Your task to perform on an android device: How big is a giraffe? Image 0: 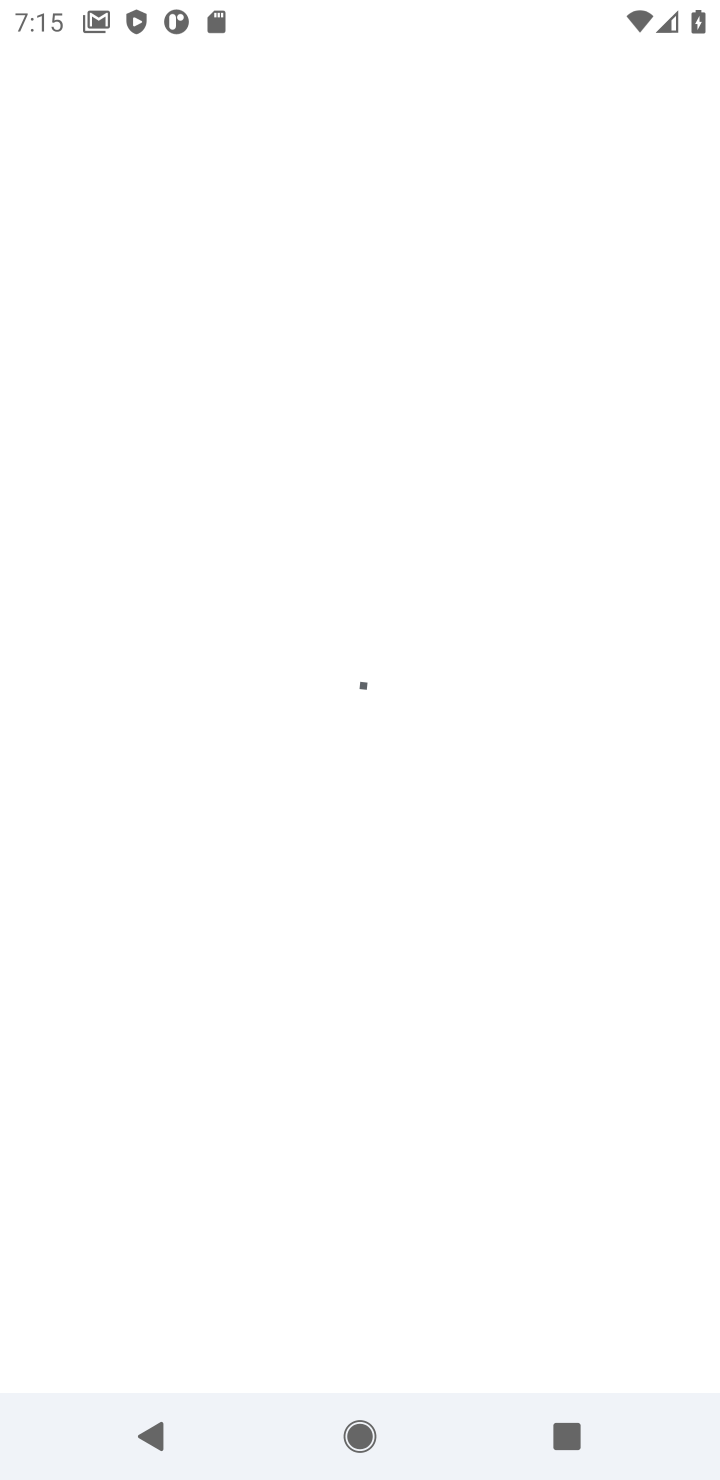
Step 0: press home button
Your task to perform on an android device: How big is a giraffe? Image 1: 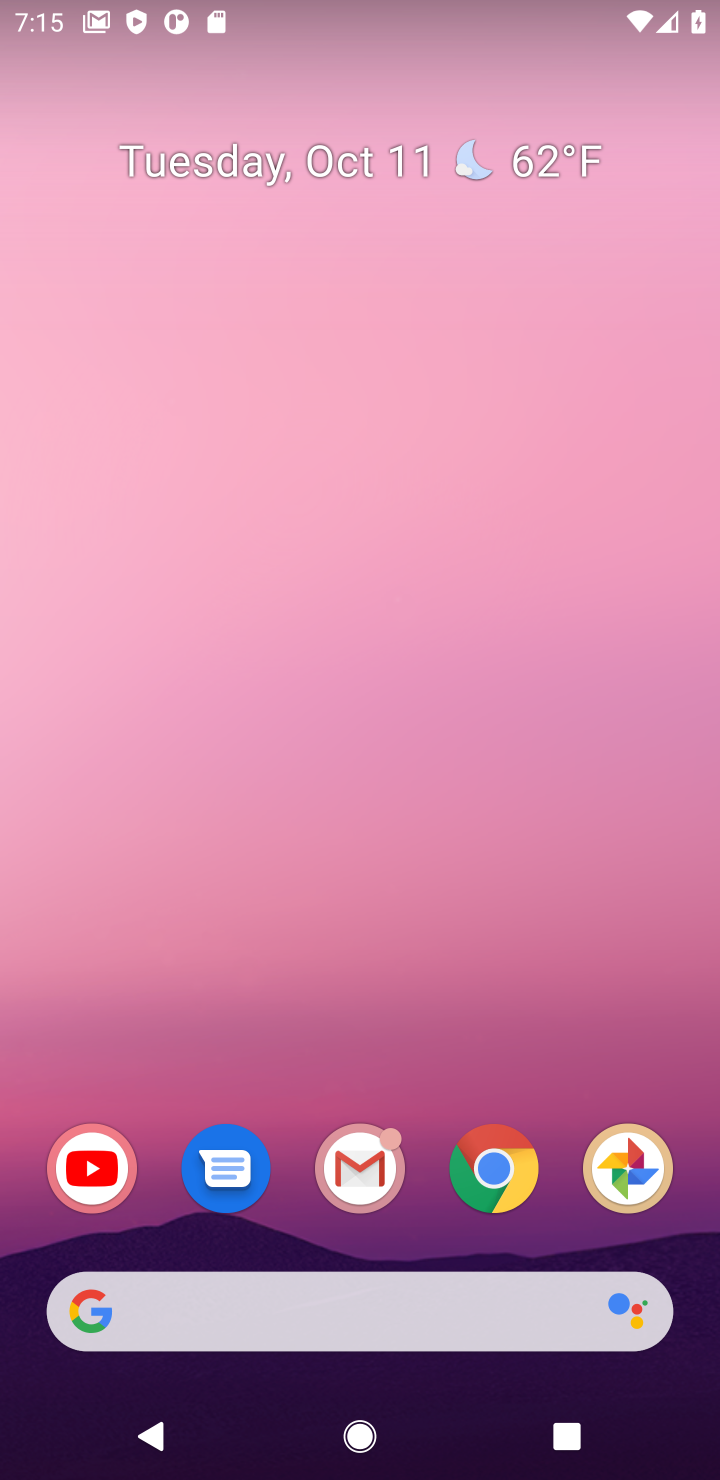
Step 1: click (502, 1178)
Your task to perform on an android device: How big is a giraffe? Image 2: 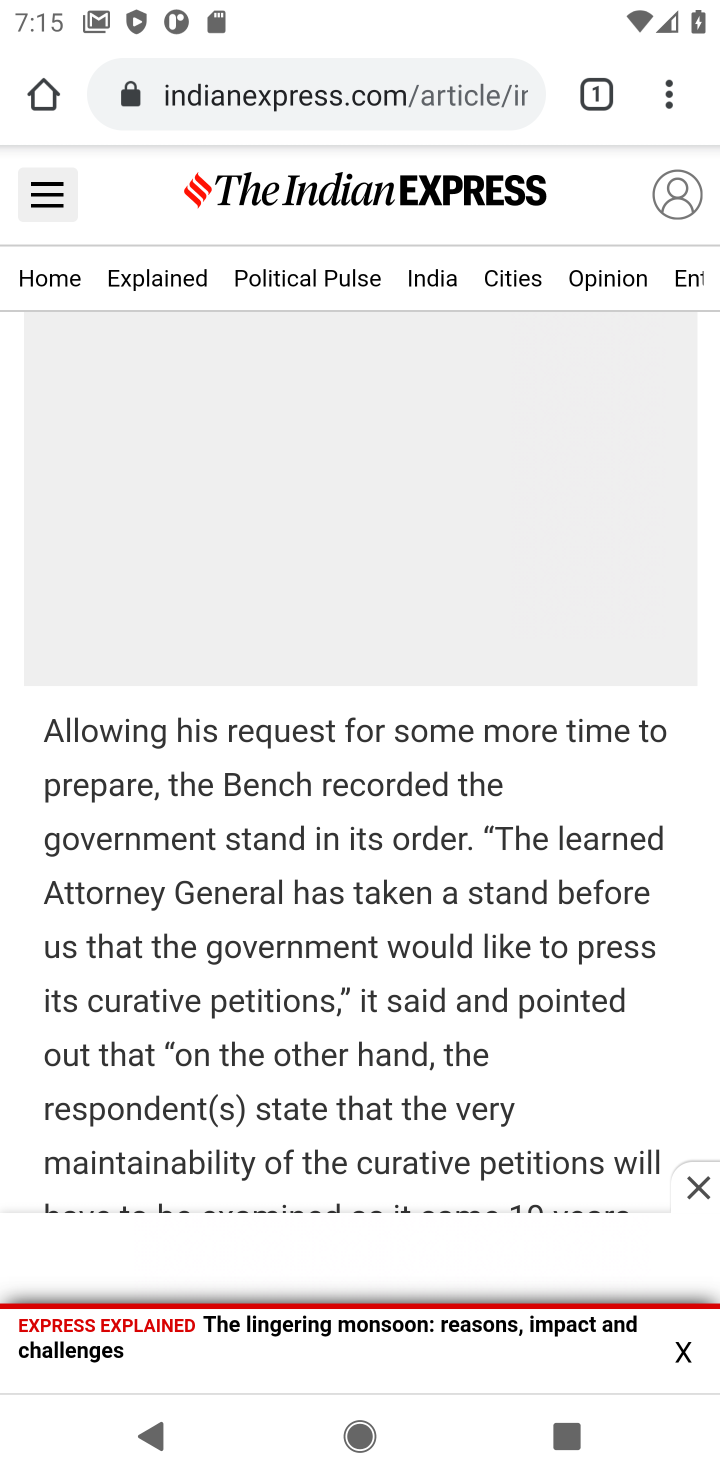
Step 2: click (317, 91)
Your task to perform on an android device: How big is a giraffe? Image 3: 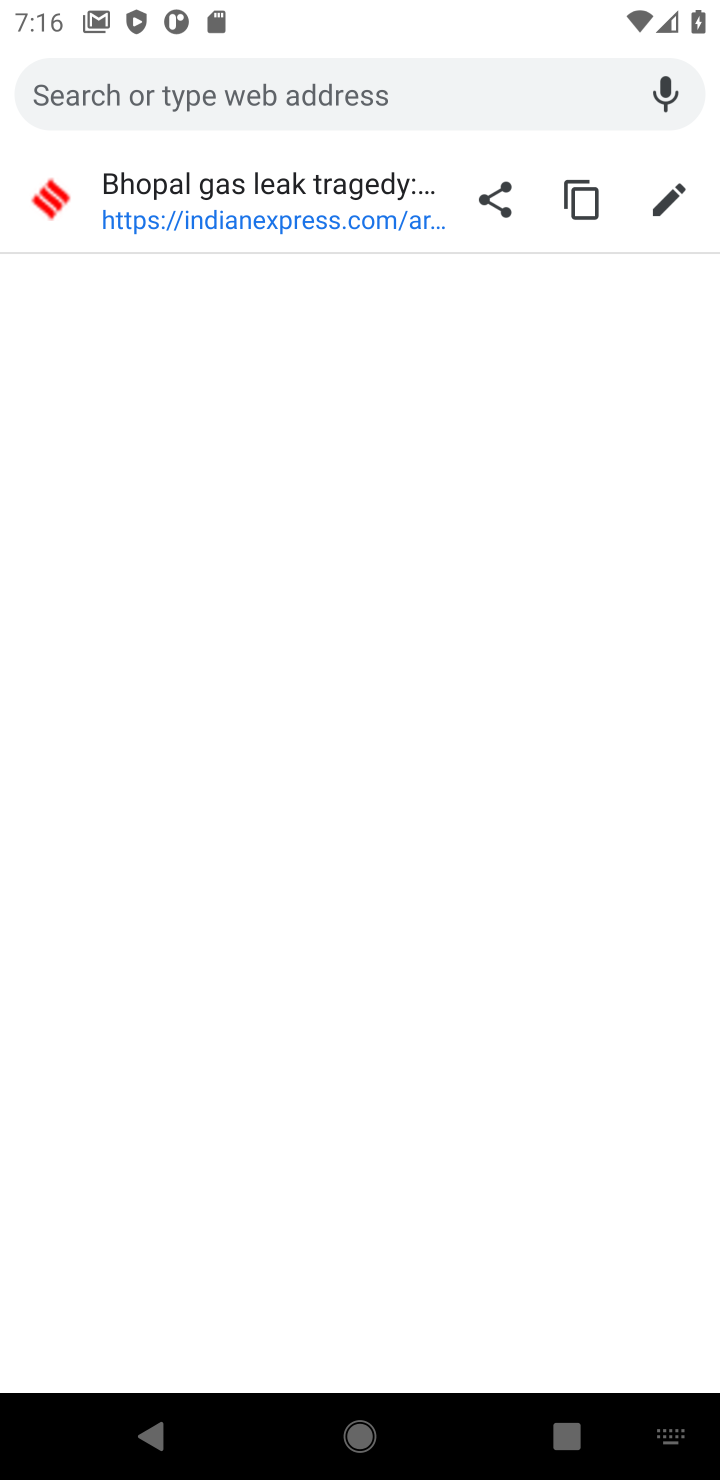
Step 3: type "how big is giraffe"
Your task to perform on an android device: How big is a giraffe? Image 4: 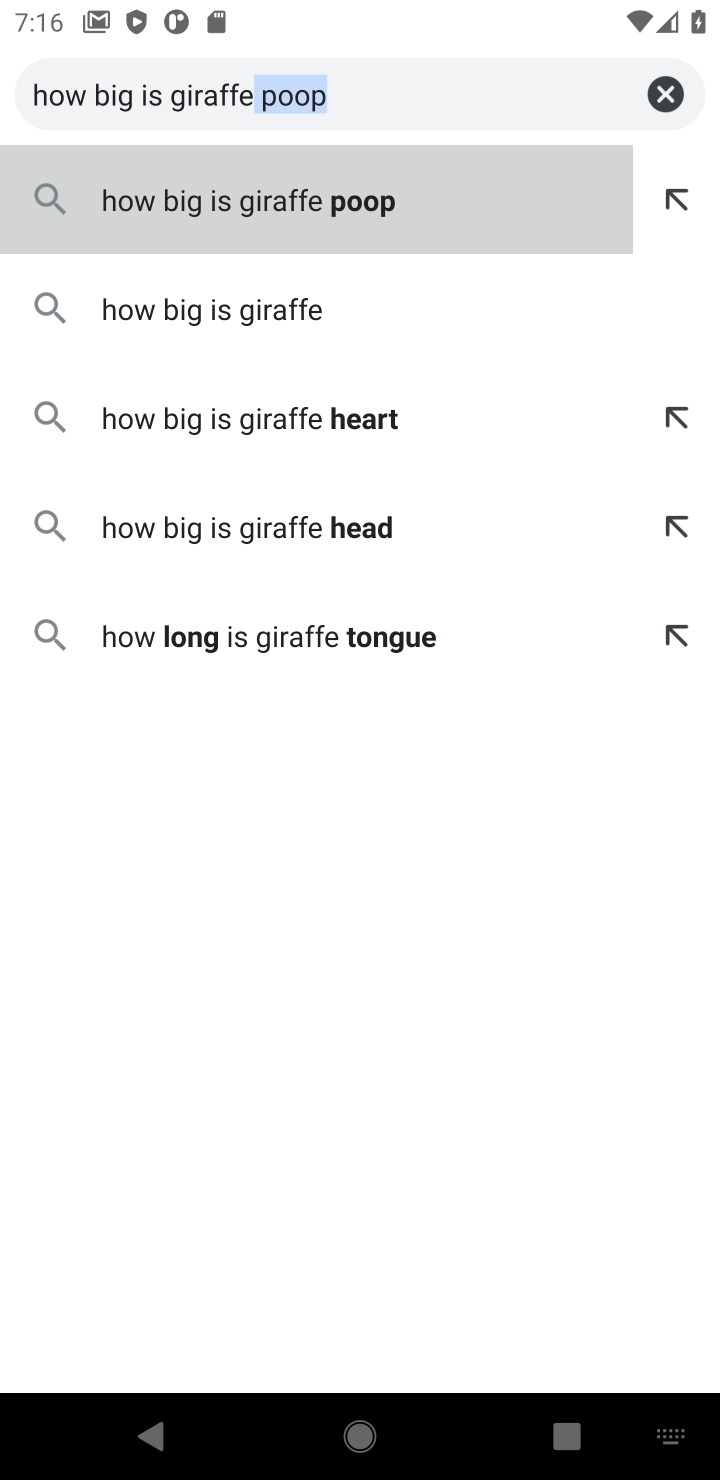
Step 4: type ""
Your task to perform on an android device: How big is a giraffe? Image 5: 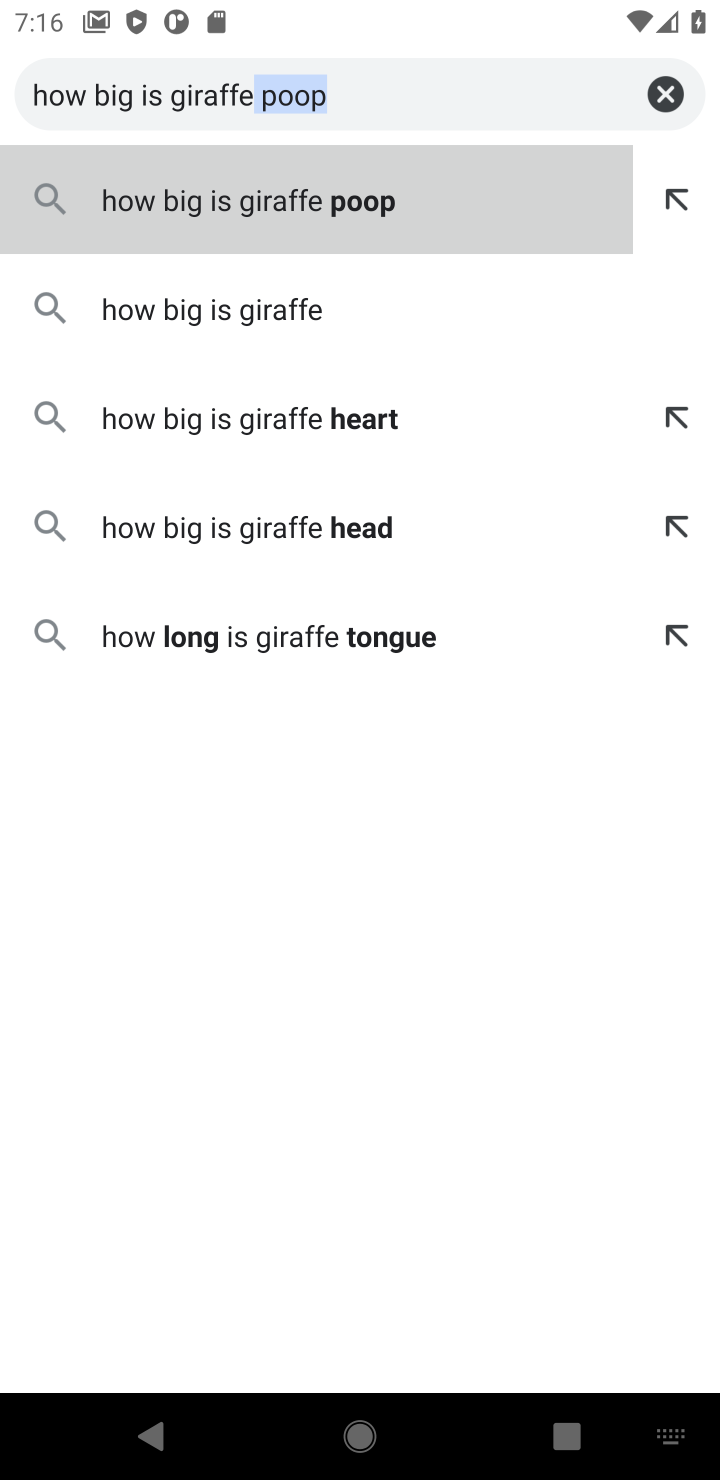
Step 5: click (280, 314)
Your task to perform on an android device: How big is a giraffe? Image 6: 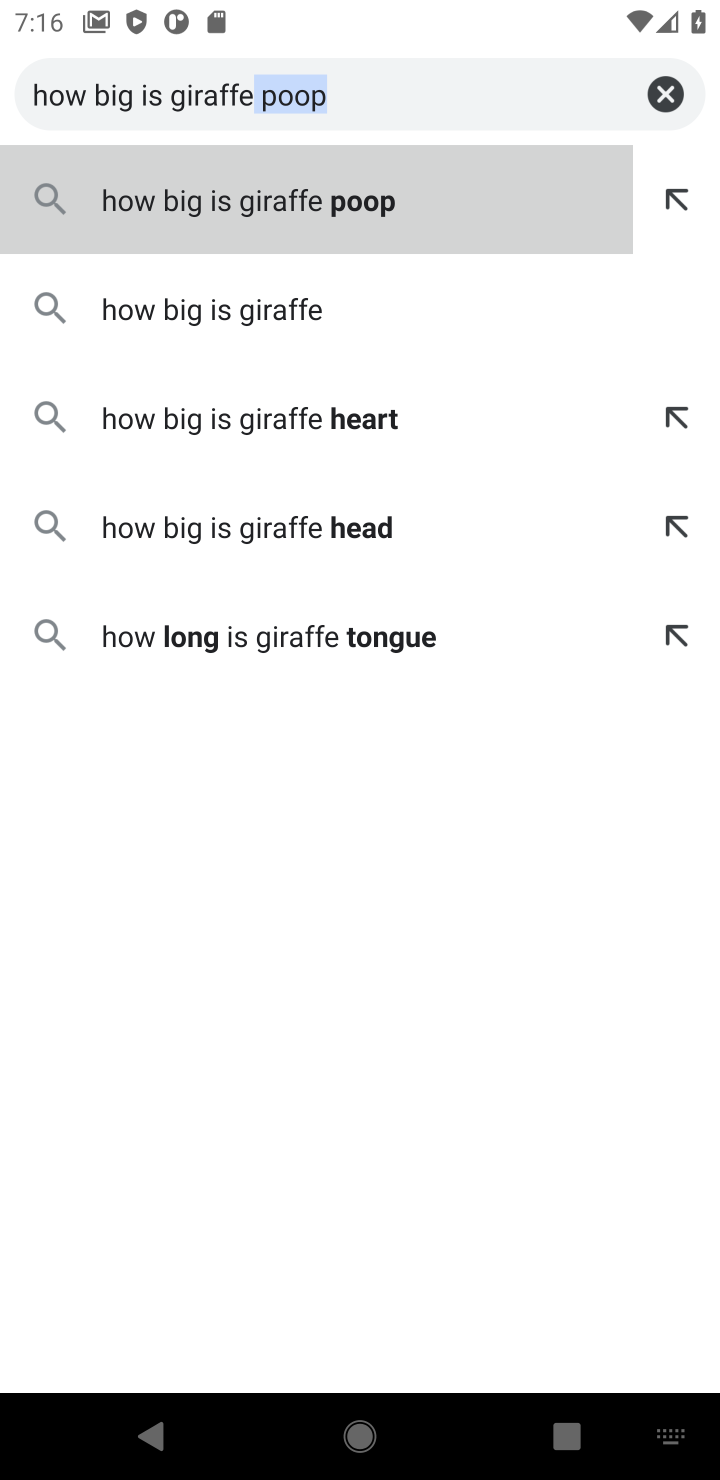
Step 6: click (284, 313)
Your task to perform on an android device: How big is a giraffe? Image 7: 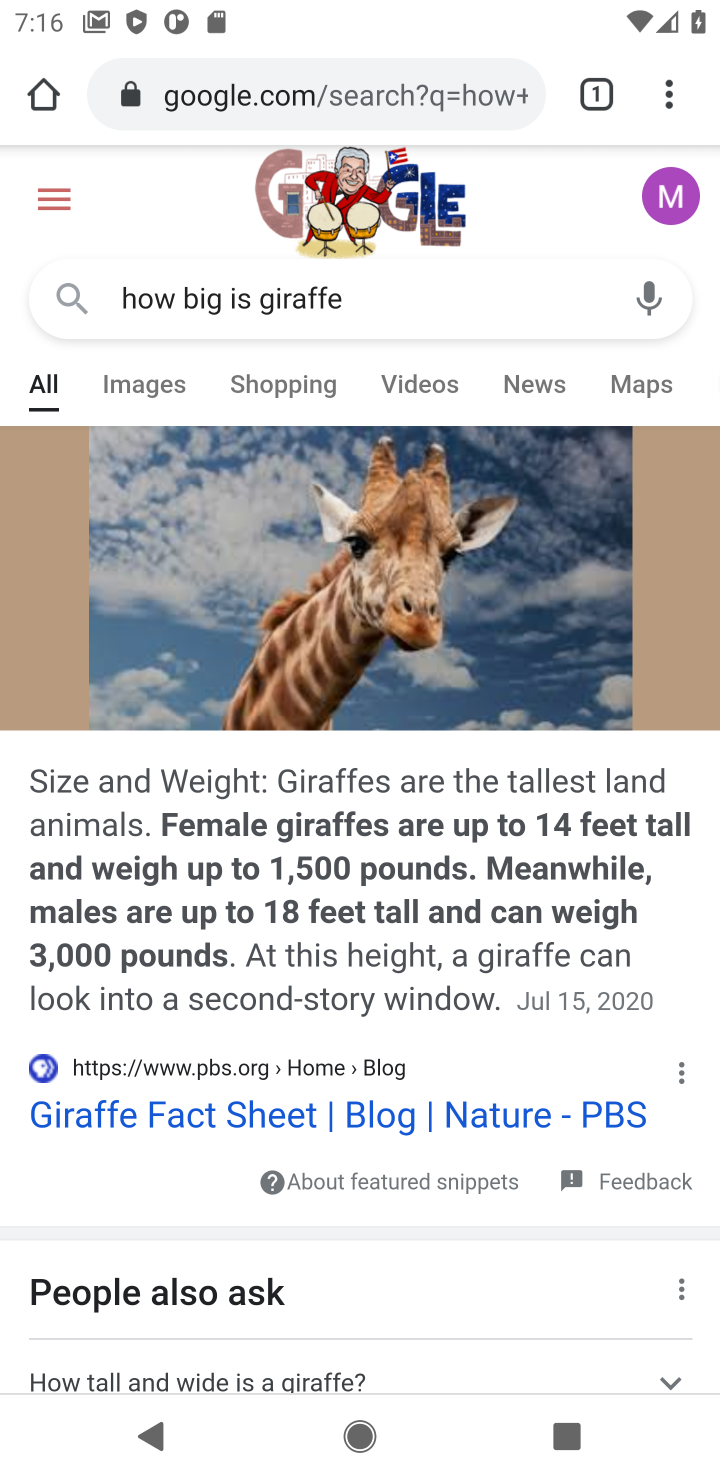
Step 7: drag from (255, 899) to (300, 544)
Your task to perform on an android device: How big is a giraffe? Image 8: 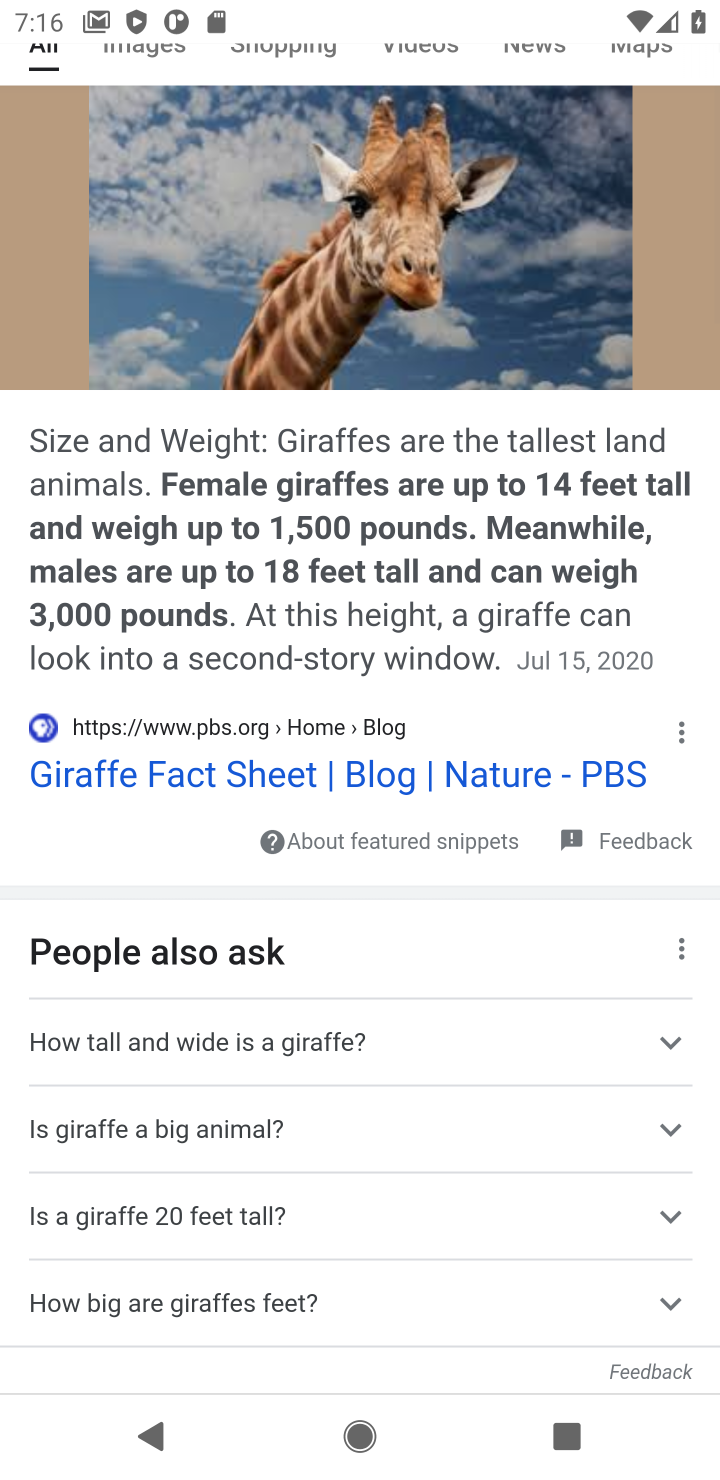
Step 8: drag from (276, 1075) to (340, 632)
Your task to perform on an android device: How big is a giraffe? Image 9: 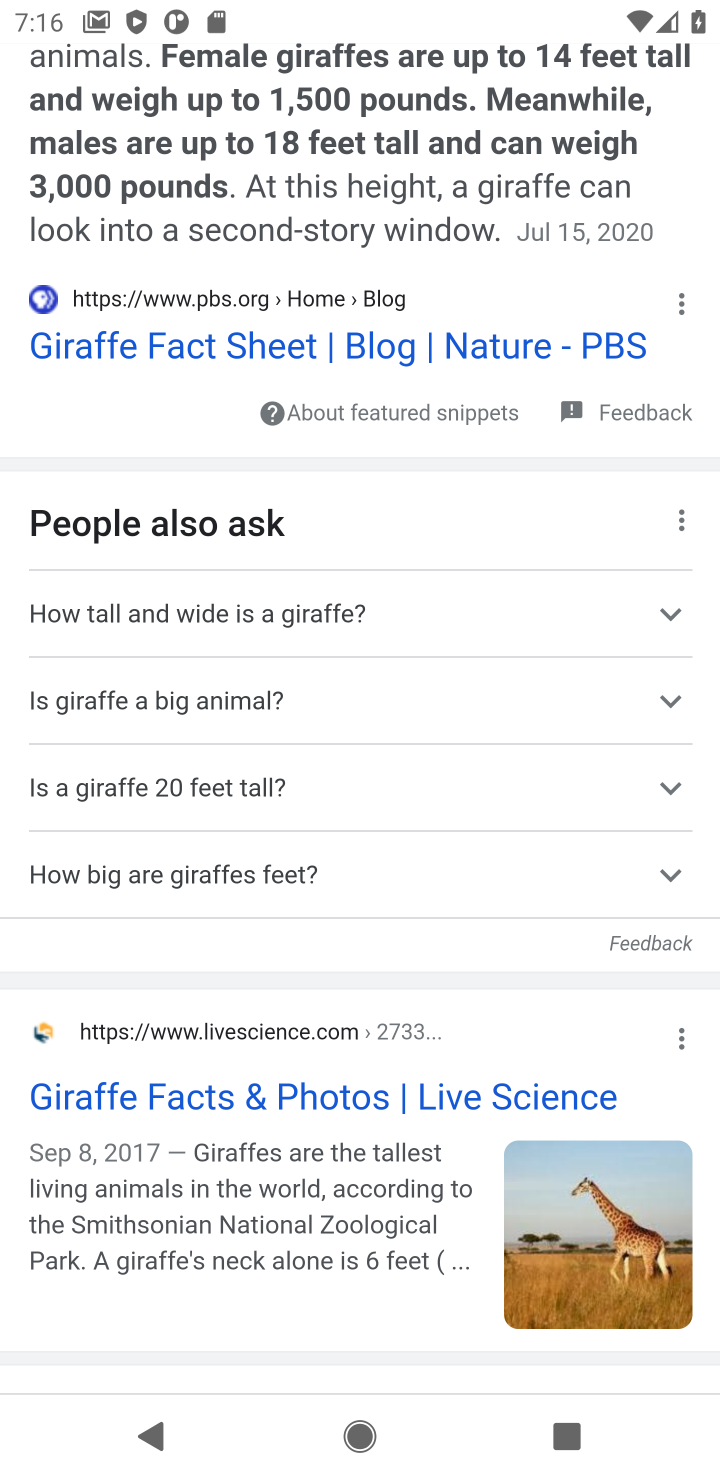
Step 9: drag from (325, 1182) to (392, 643)
Your task to perform on an android device: How big is a giraffe? Image 10: 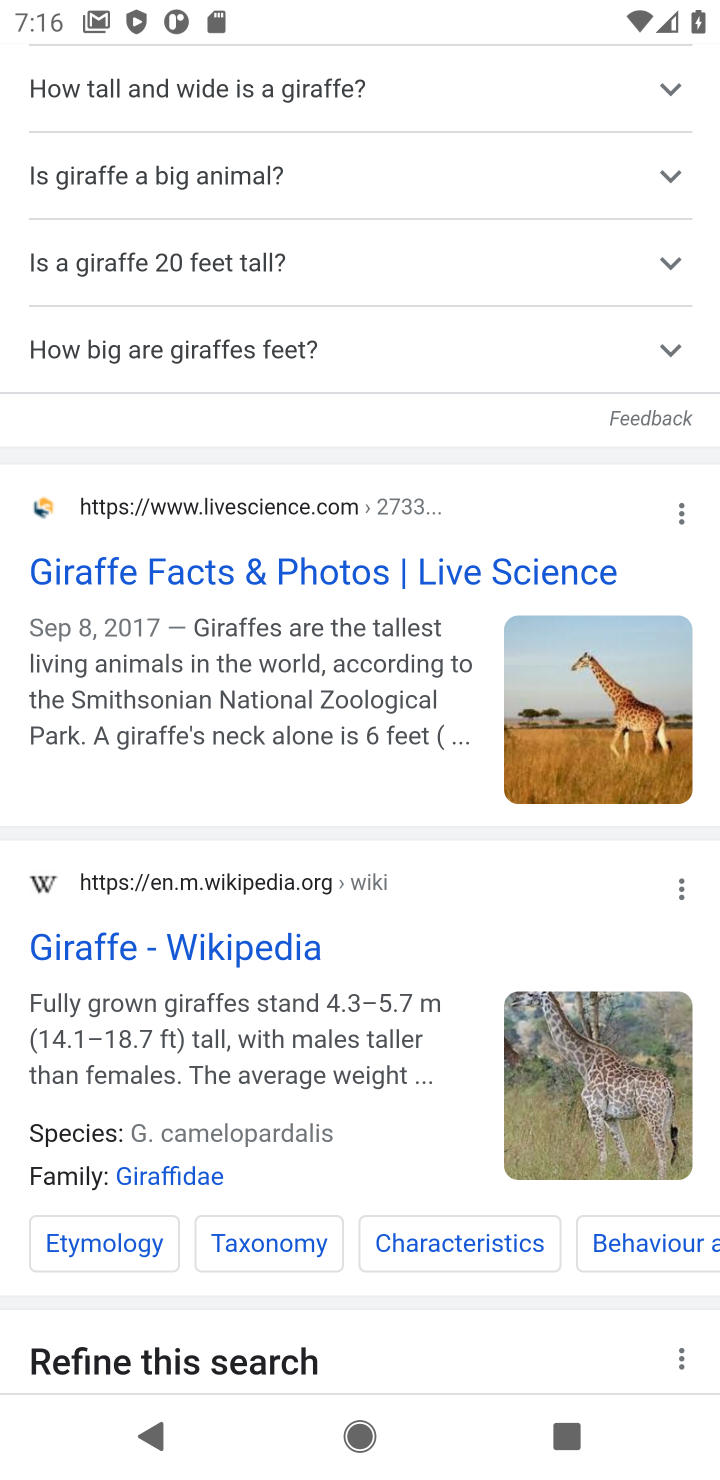
Step 10: click (94, 942)
Your task to perform on an android device: How big is a giraffe? Image 11: 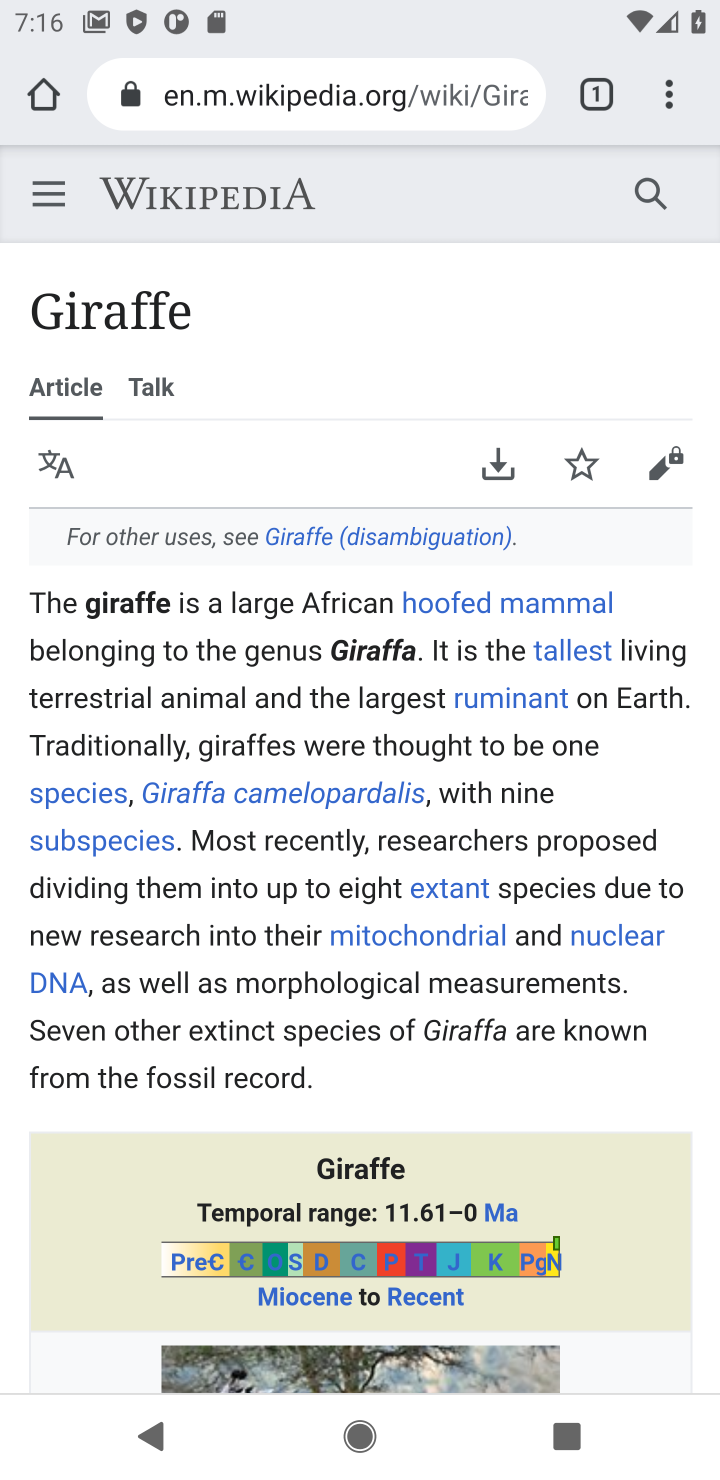
Step 11: drag from (400, 802) to (449, 580)
Your task to perform on an android device: How big is a giraffe? Image 12: 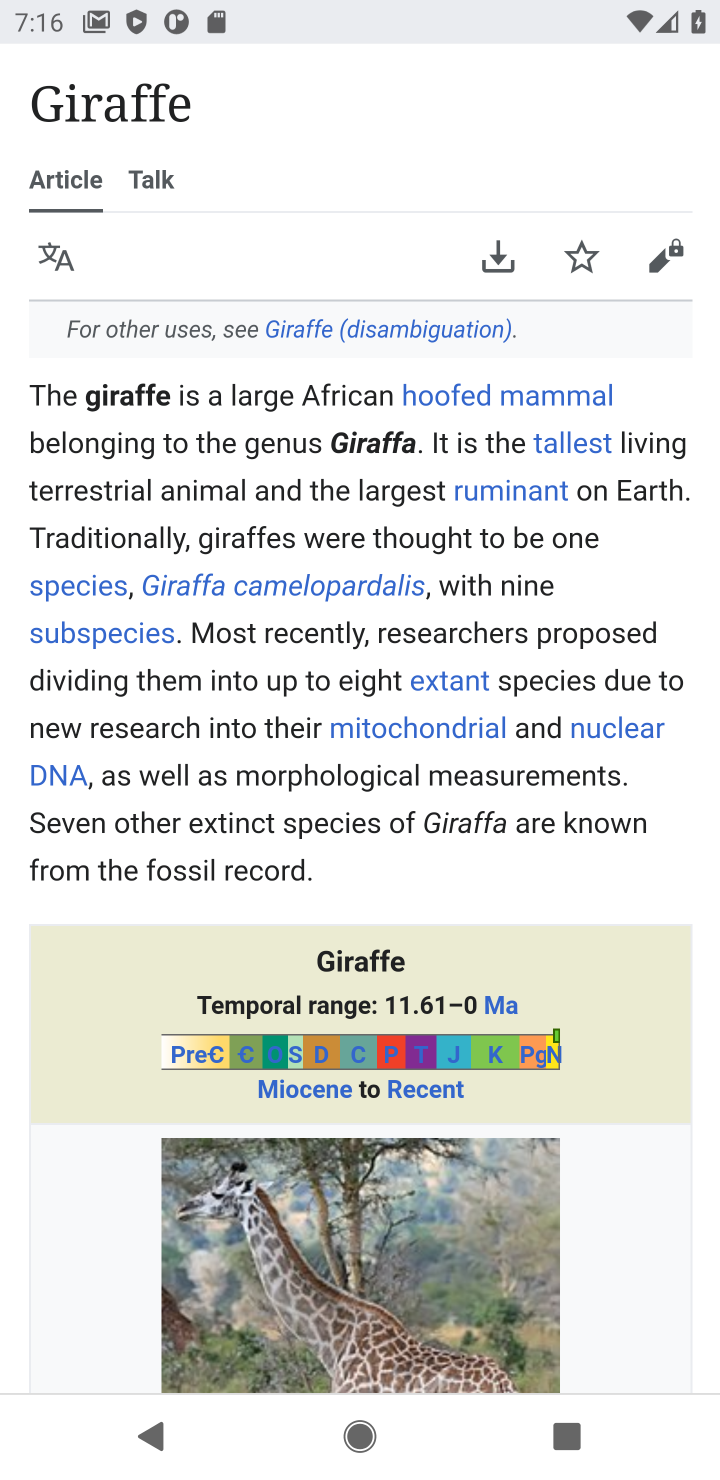
Step 12: drag from (563, 1241) to (601, 647)
Your task to perform on an android device: How big is a giraffe? Image 13: 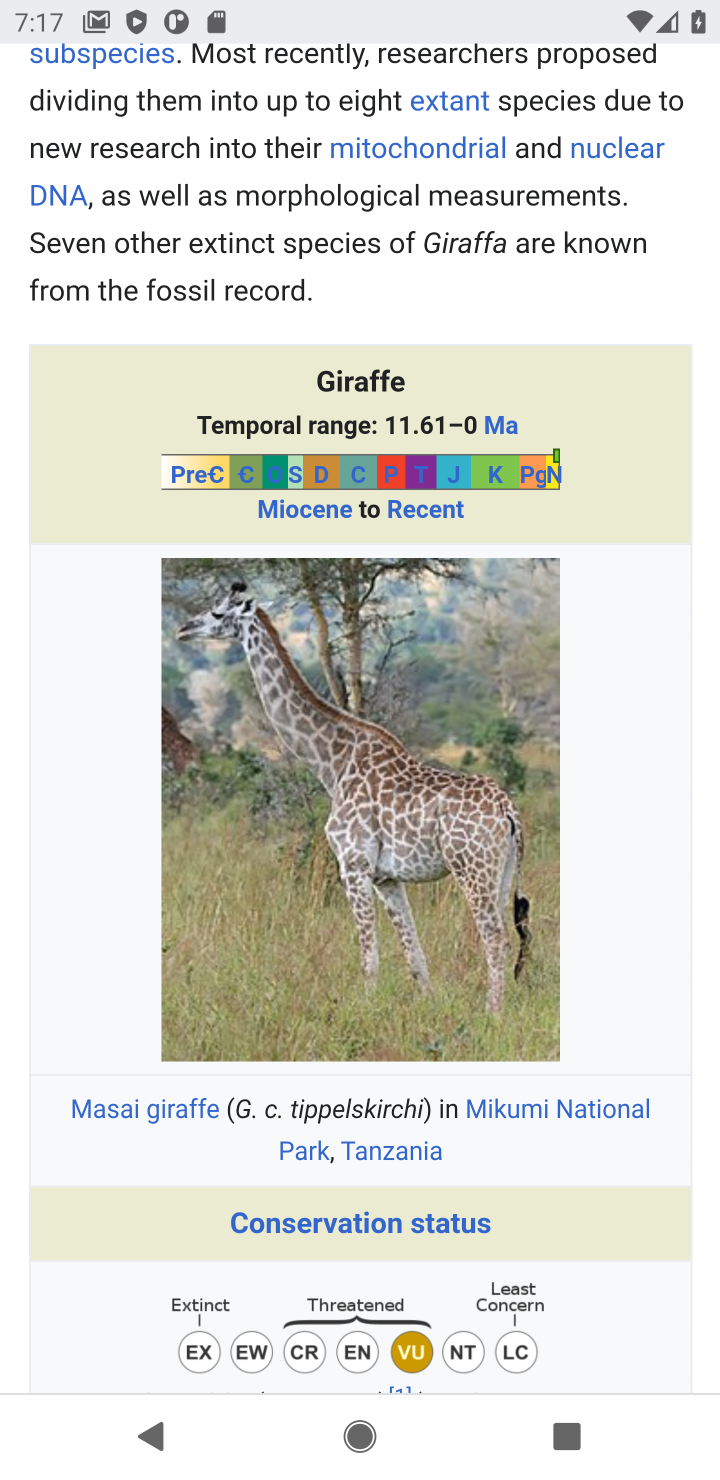
Step 13: click (398, 836)
Your task to perform on an android device: How big is a giraffe? Image 14: 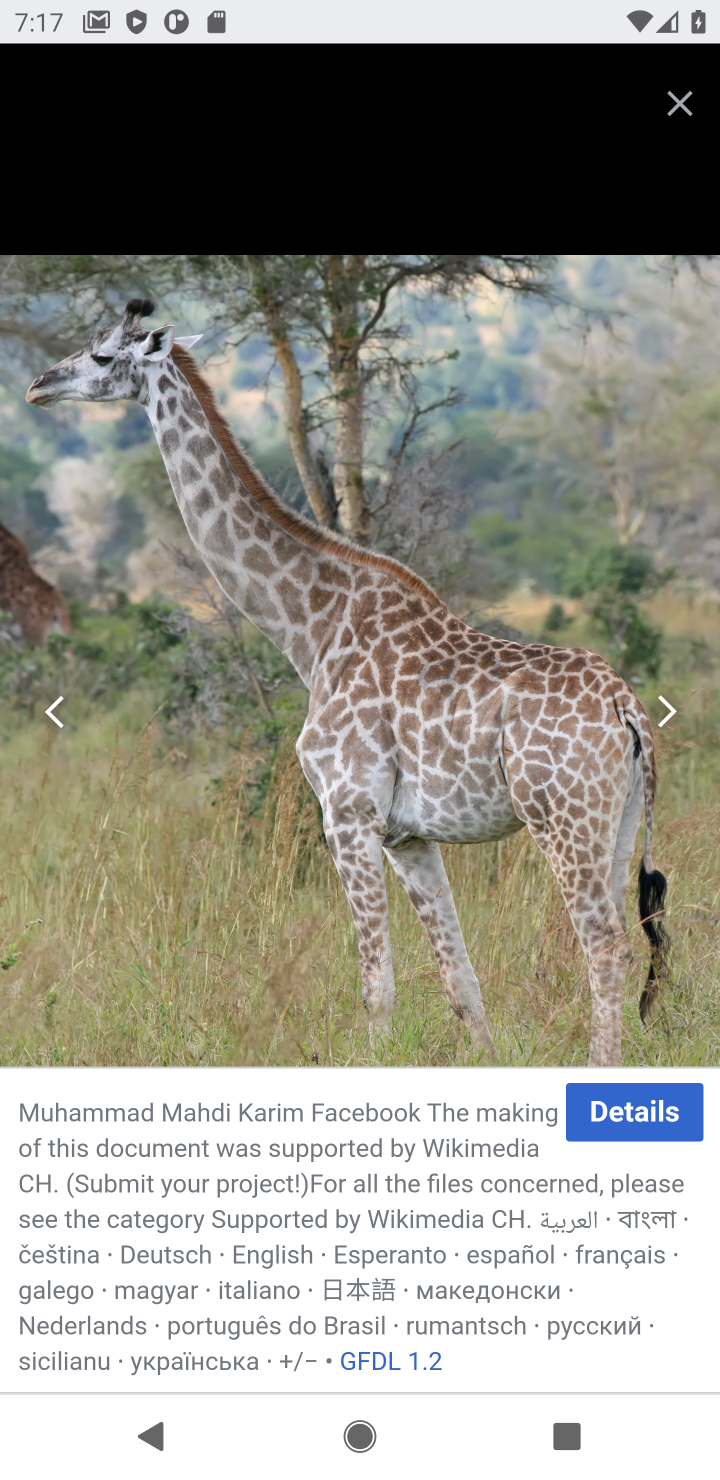
Step 14: click (659, 716)
Your task to perform on an android device: How big is a giraffe? Image 15: 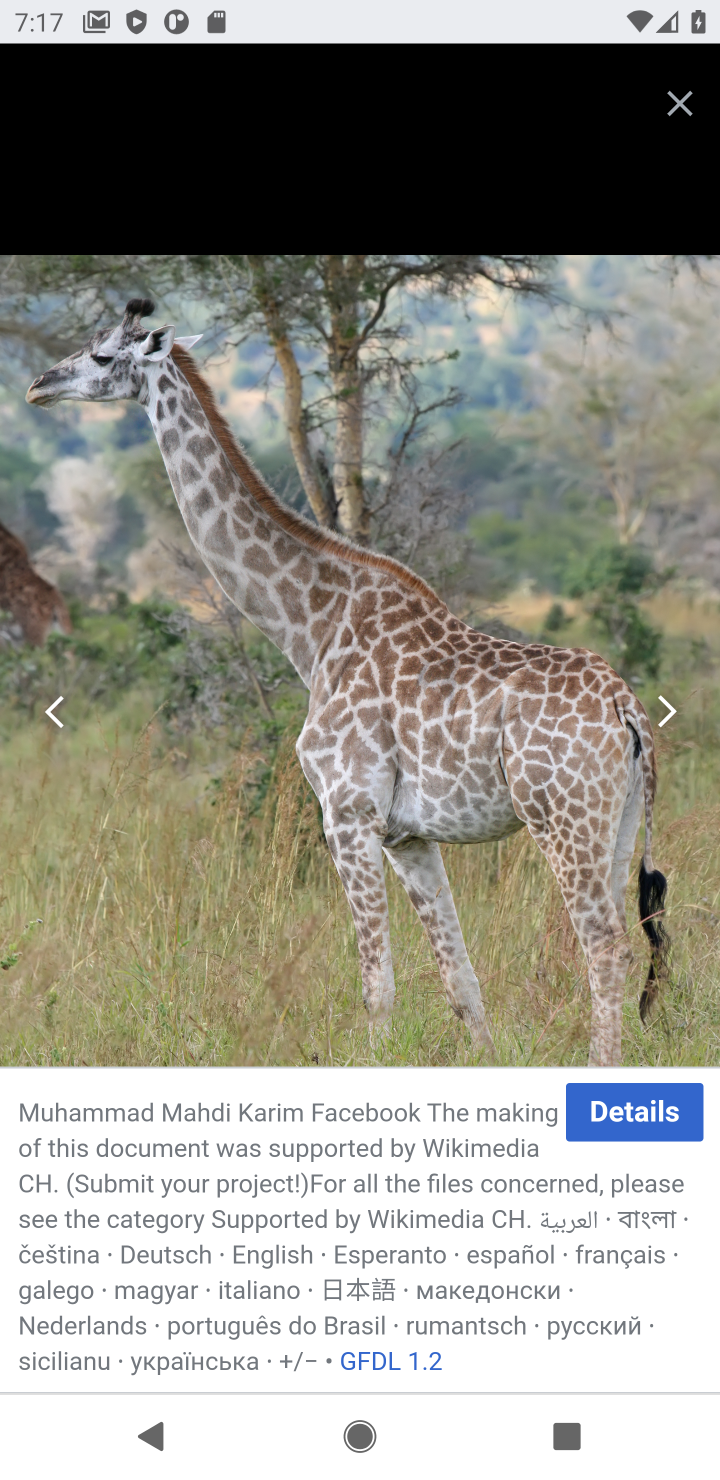
Step 15: task complete